Your task to perform on an android device: find which apps use the phone's location Image 0: 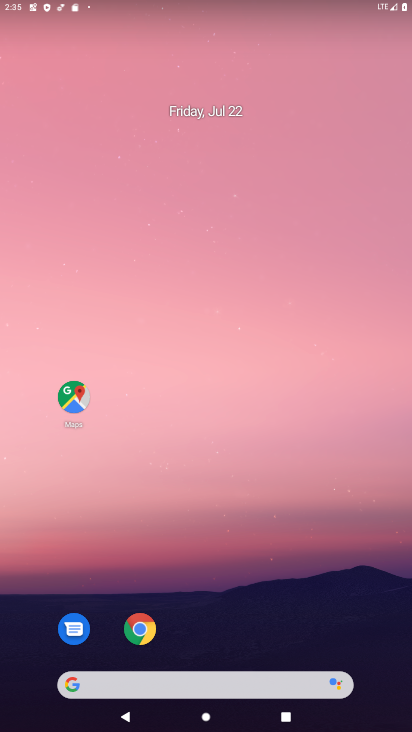
Step 0: drag from (181, 676) to (240, 110)
Your task to perform on an android device: find which apps use the phone's location Image 1: 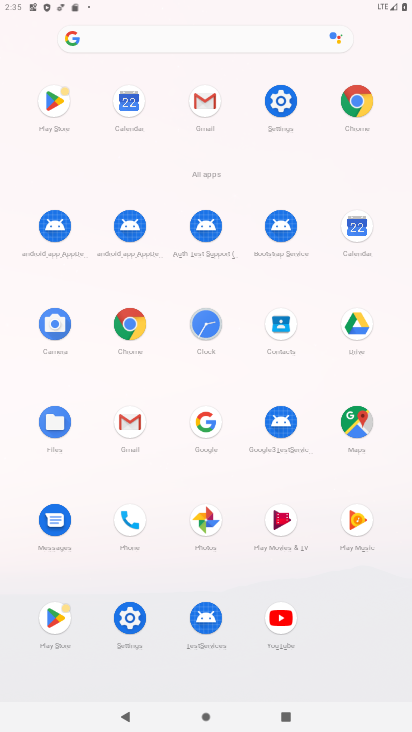
Step 1: click (277, 129)
Your task to perform on an android device: find which apps use the phone's location Image 2: 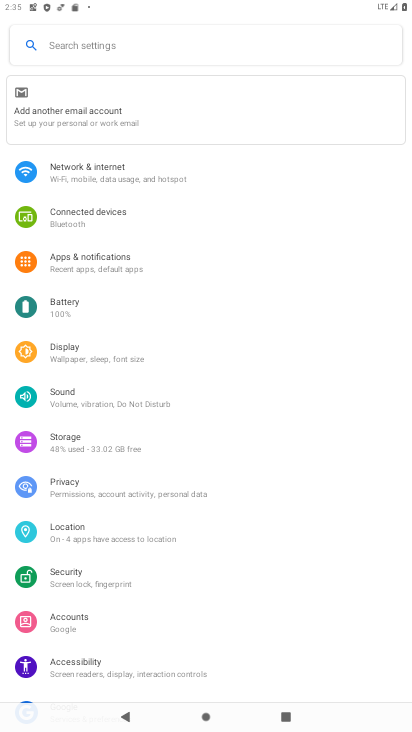
Step 2: click (72, 540)
Your task to perform on an android device: find which apps use the phone's location Image 3: 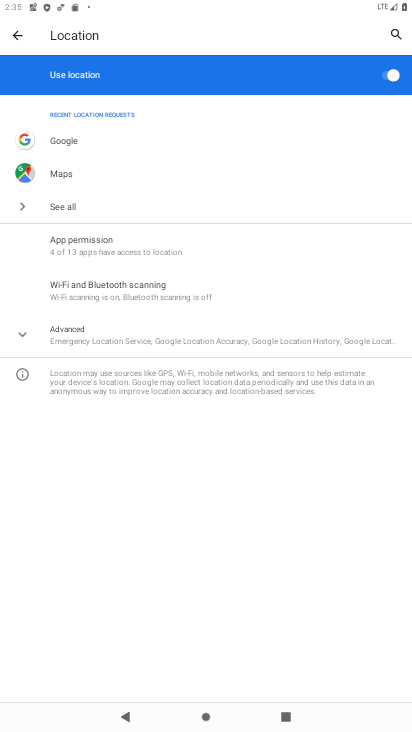
Step 3: click (76, 247)
Your task to perform on an android device: find which apps use the phone's location Image 4: 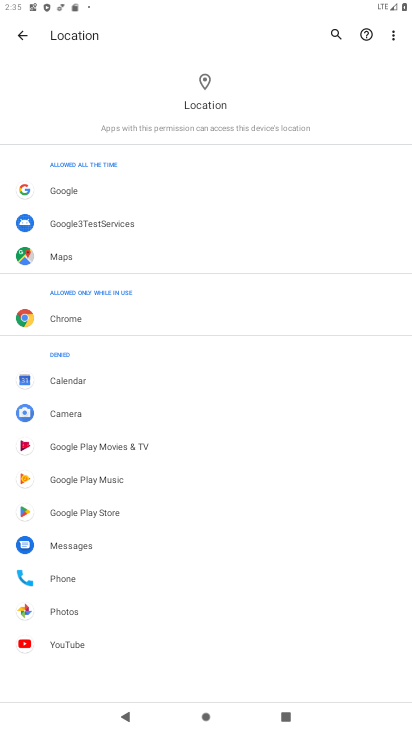
Step 4: task complete